Your task to perform on an android device: change notifications settings Image 0: 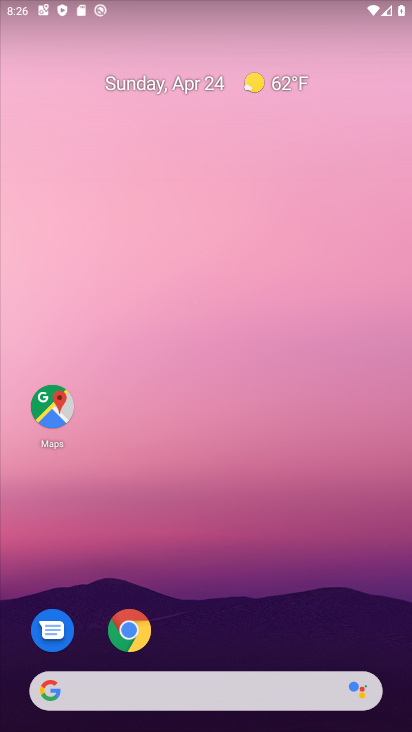
Step 0: drag from (299, 550) to (240, 27)
Your task to perform on an android device: change notifications settings Image 1: 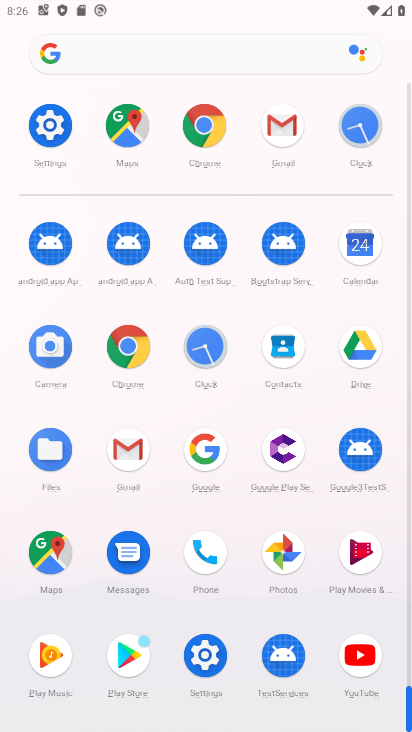
Step 1: drag from (11, 533) to (5, 185)
Your task to perform on an android device: change notifications settings Image 2: 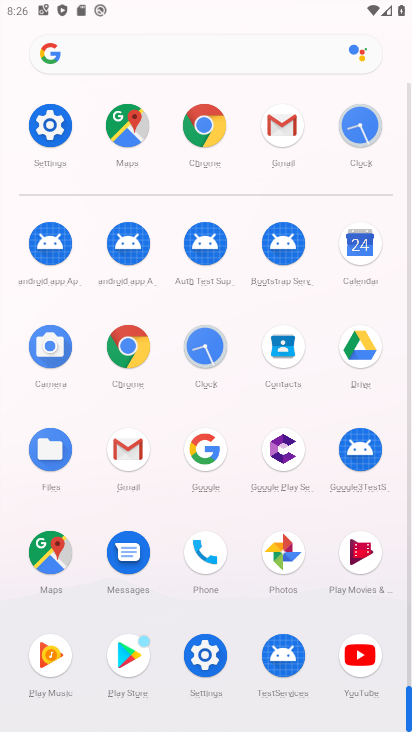
Step 2: click (205, 654)
Your task to perform on an android device: change notifications settings Image 3: 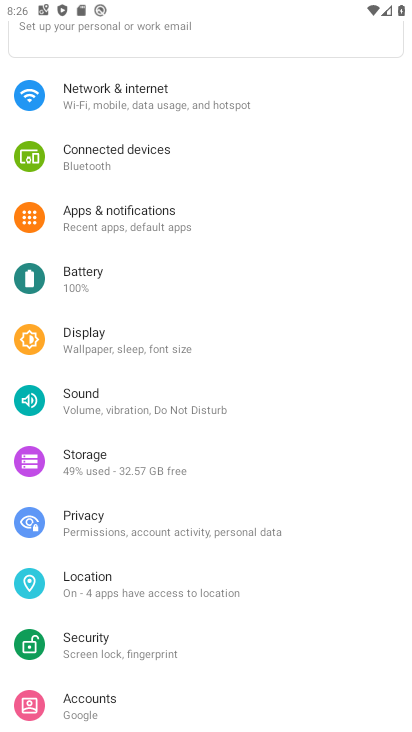
Step 3: click (110, 205)
Your task to perform on an android device: change notifications settings Image 4: 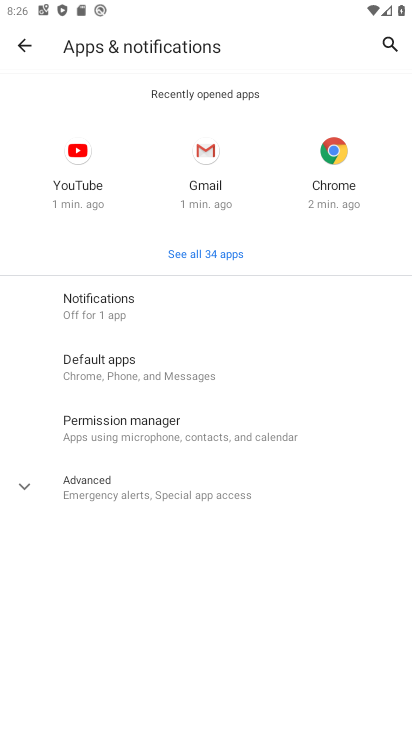
Step 4: click (42, 483)
Your task to perform on an android device: change notifications settings Image 5: 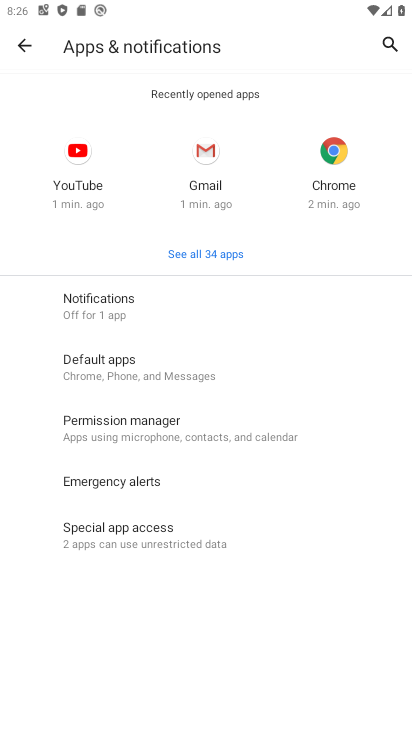
Step 5: click (94, 307)
Your task to perform on an android device: change notifications settings Image 6: 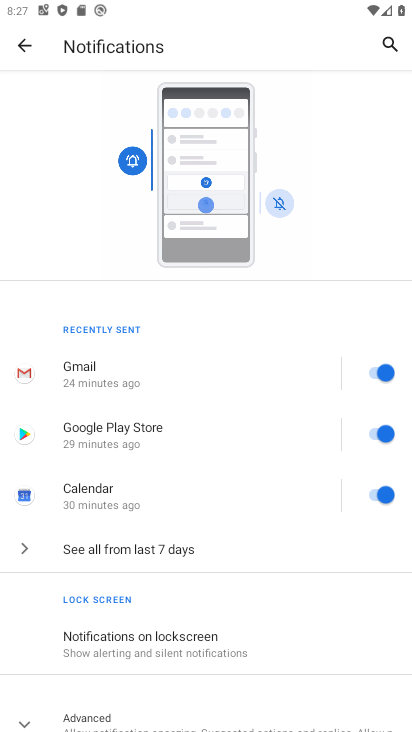
Step 6: drag from (218, 598) to (242, 201)
Your task to perform on an android device: change notifications settings Image 7: 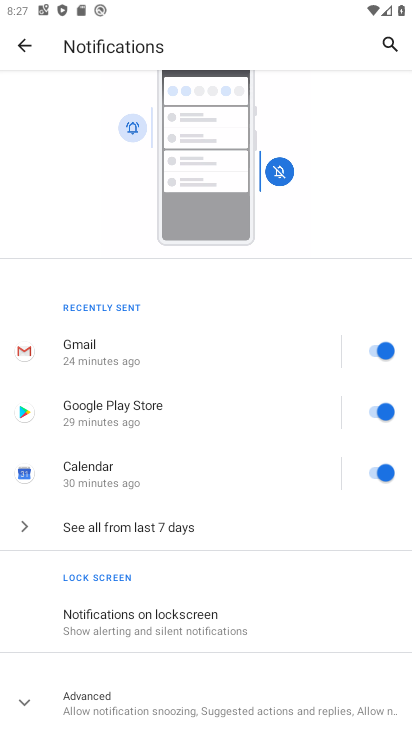
Step 7: click (35, 699)
Your task to perform on an android device: change notifications settings Image 8: 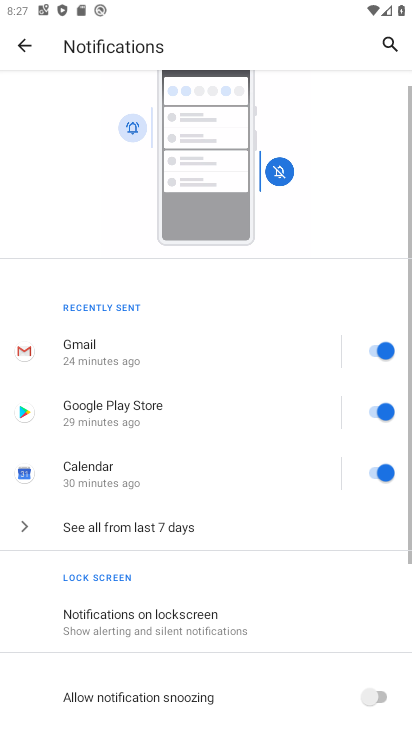
Step 8: drag from (260, 605) to (271, 233)
Your task to perform on an android device: change notifications settings Image 9: 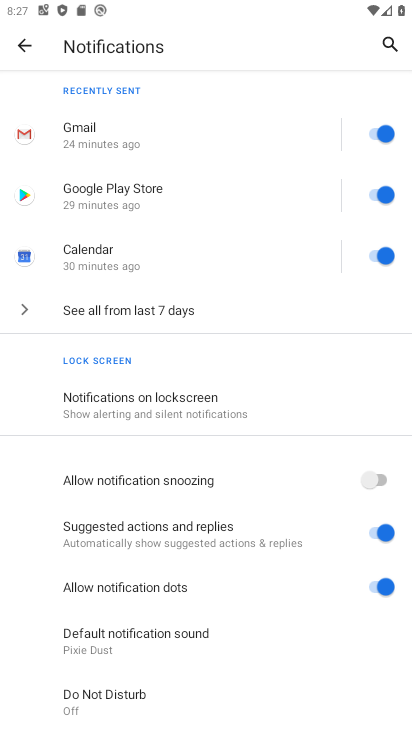
Step 9: drag from (247, 626) to (256, 260)
Your task to perform on an android device: change notifications settings Image 10: 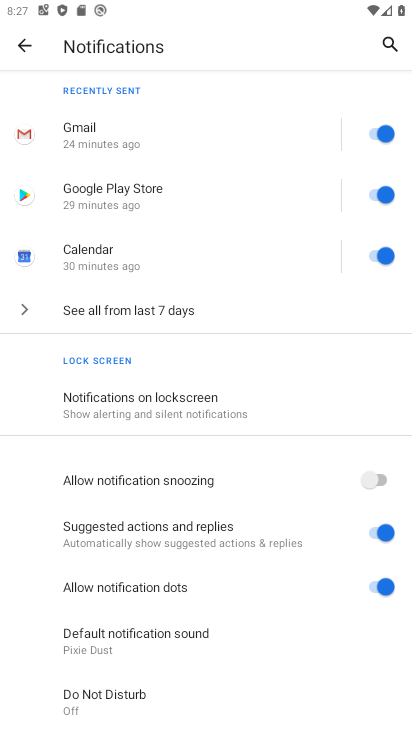
Step 10: click (369, 479)
Your task to perform on an android device: change notifications settings Image 11: 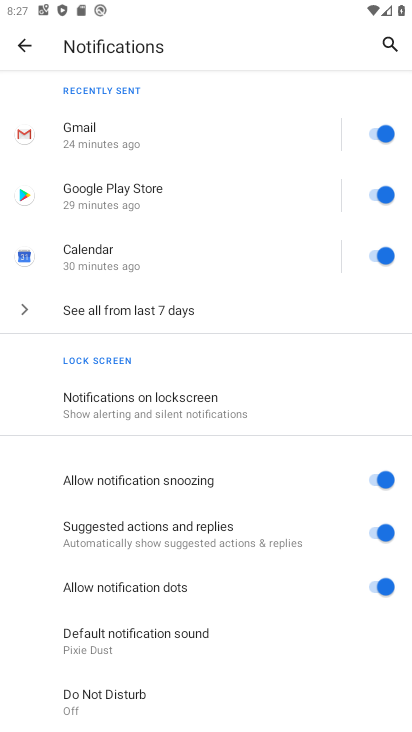
Step 11: task complete